Your task to perform on an android device: Go to settings Image 0: 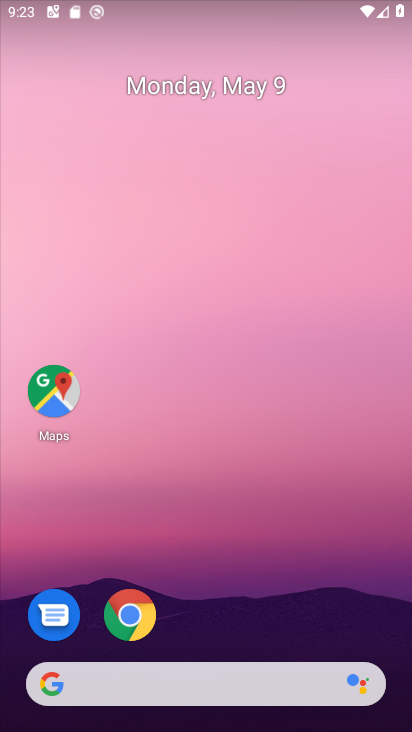
Step 0: click (248, 230)
Your task to perform on an android device: Go to settings Image 1: 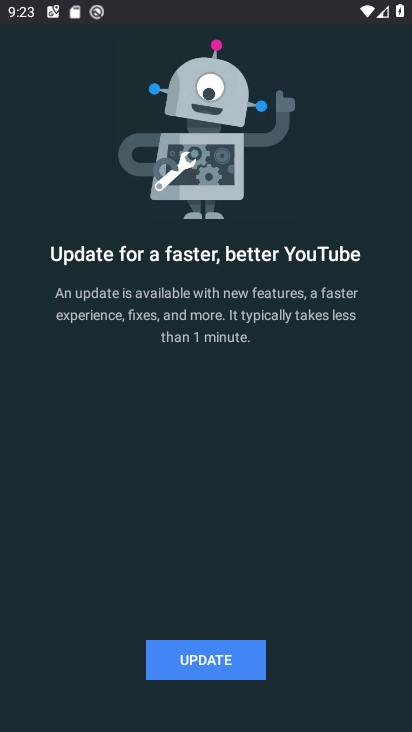
Step 1: press home button
Your task to perform on an android device: Go to settings Image 2: 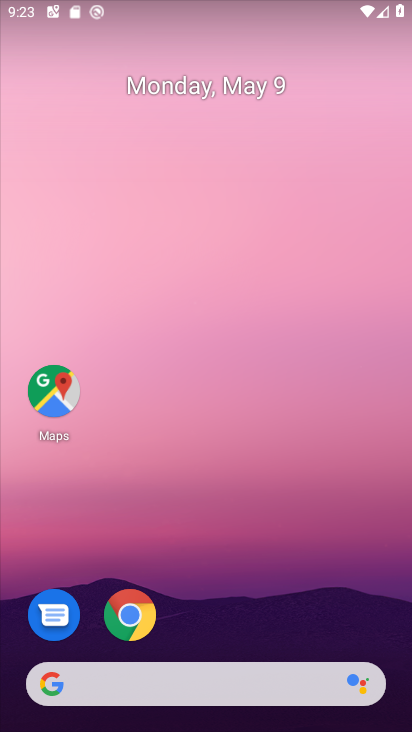
Step 2: drag from (275, 728) to (252, 274)
Your task to perform on an android device: Go to settings Image 3: 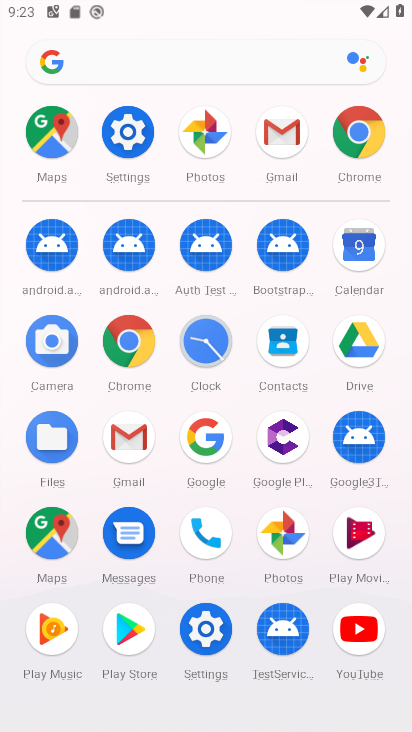
Step 3: click (209, 616)
Your task to perform on an android device: Go to settings Image 4: 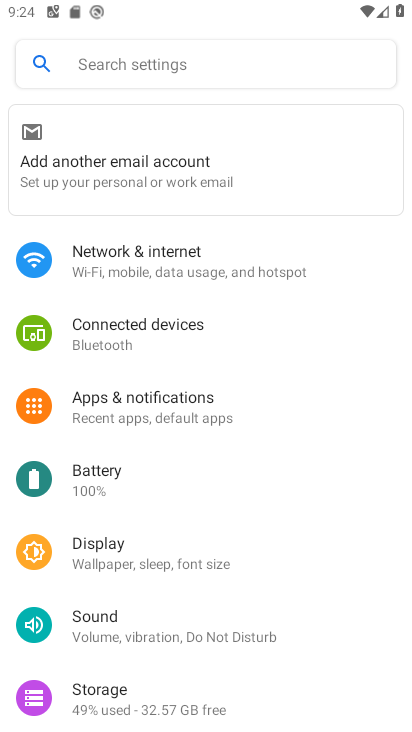
Step 4: task complete